Your task to perform on an android device: change text size in settings app Image 0: 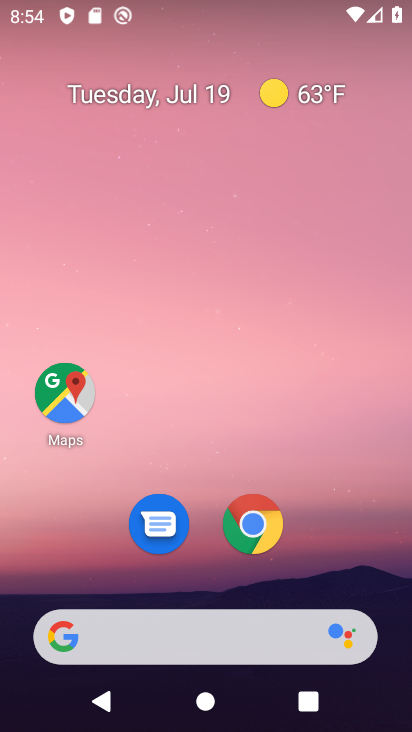
Step 0: press home button
Your task to perform on an android device: change text size in settings app Image 1: 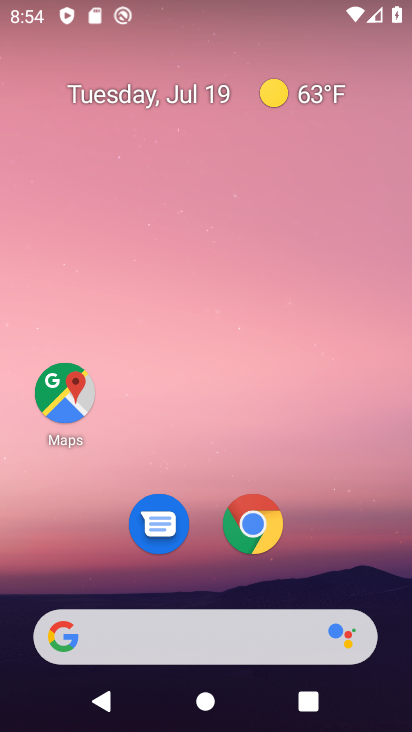
Step 1: drag from (178, 644) to (298, 140)
Your task to perform on an android device: change text size in settings app Image 2: 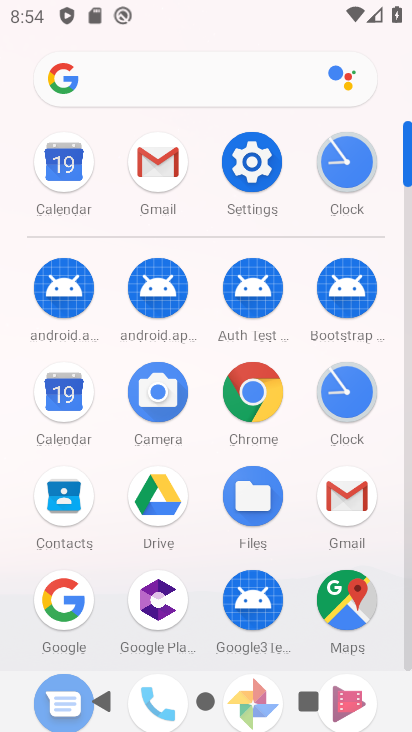
Step 2: click (261, 166)
Your task to perform on an android device: change text size in settings app Image 3: 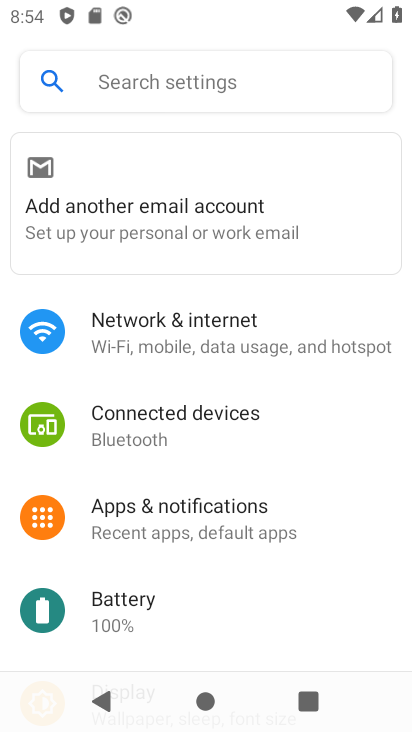
Step 3: drag from (211, 564) to (291, 176)
Your task to perform on an android device: change text size in settings app Image 4: 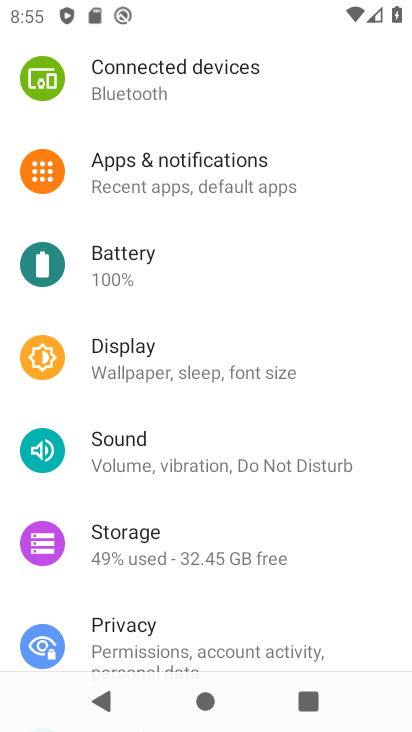
Step 4: click (204, 364)
Your task to perform on an android device: change text size in settings app Image 5: 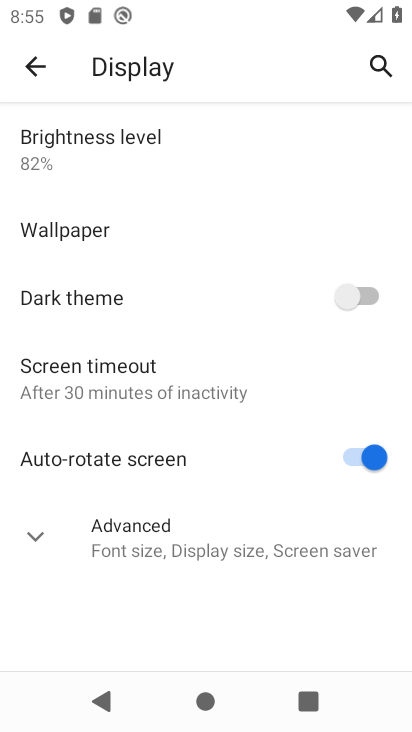
Step 5: click (140, 536)
Your task to perform on an android device: change text size in settings app Image 6: 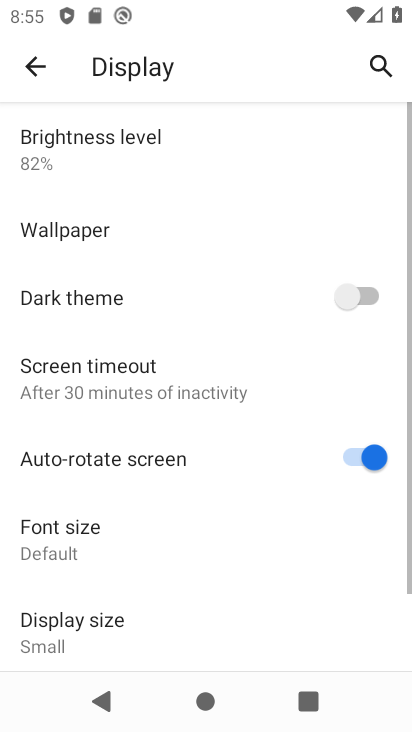
Step 6: drag from (182, 547) to (237, 272)
Your task to perform on an android device: change text size in settings app Image 7: 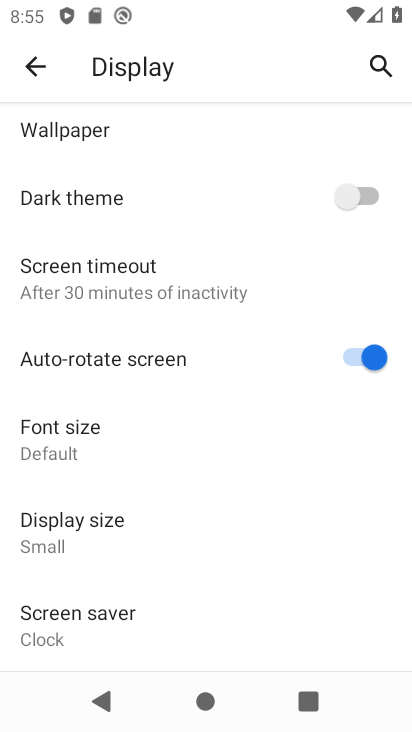
Step 7: click (42, 441)
Your task to perform on an android device: change text size in settings app Image 8: 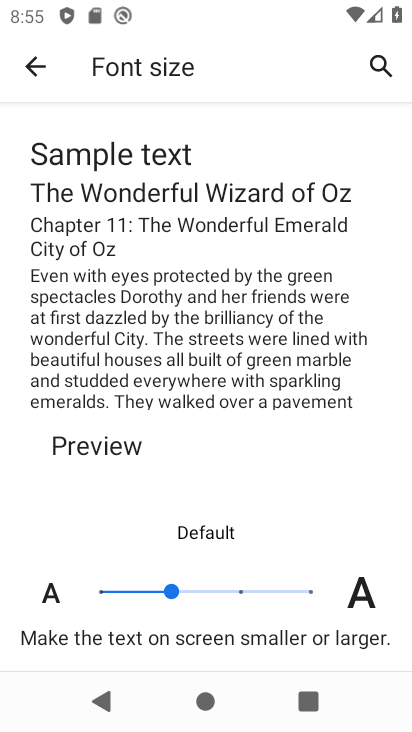
Step 8: click (238, 590)
Your task to perform on an android device: change text size in settings app Image 9: 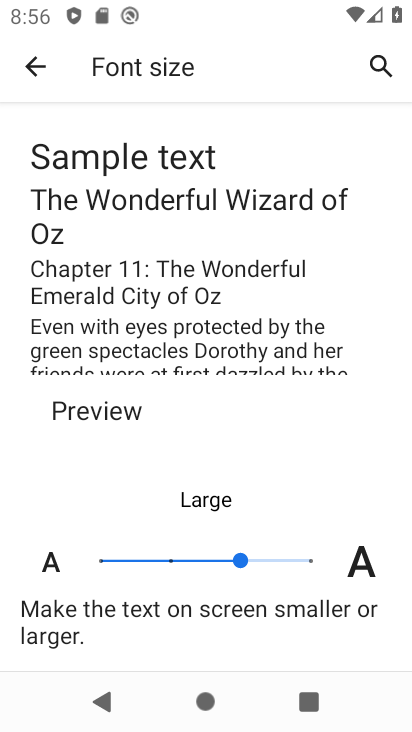
Step 9: task complete